Your task to perform on an android device: set an alarm Image 0: 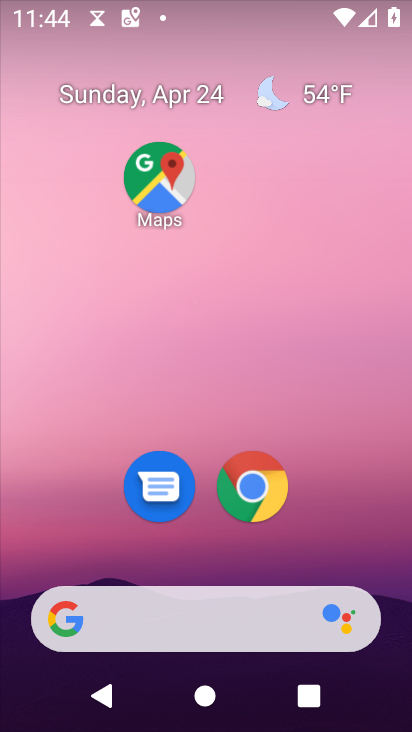
Step 0: drag from (234, 561) to (240, 186)
Your task to perform on an android device: set an alarm Image 1: 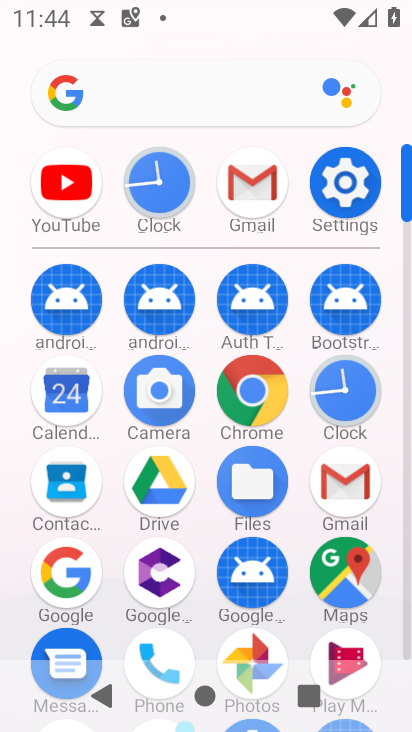
Step 1: click (339, 404)
Your task to perform on an android device: set an alarm Image 2: 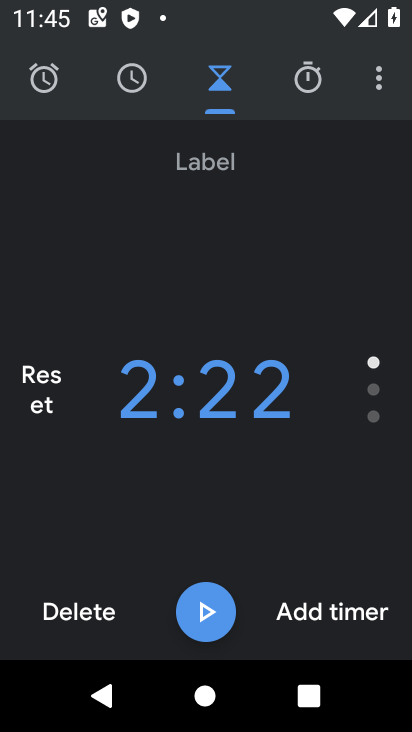
Step 2: click (49, 101)
Your task to perform on an android device: set an alarm Image 3: 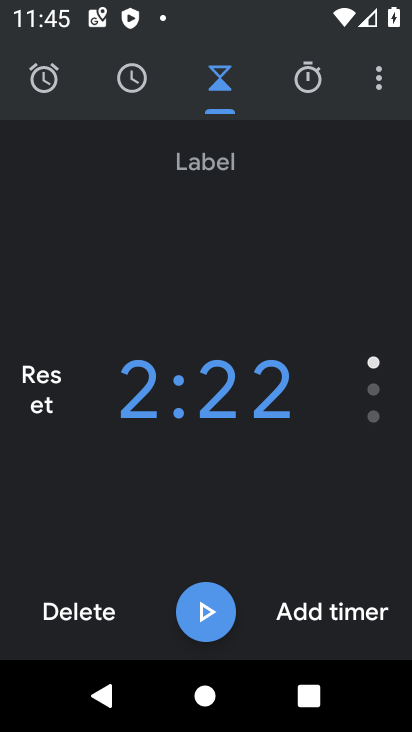
Step 3: click (58, 86)
Your task to perform on an android device: set an alarm Image 4: 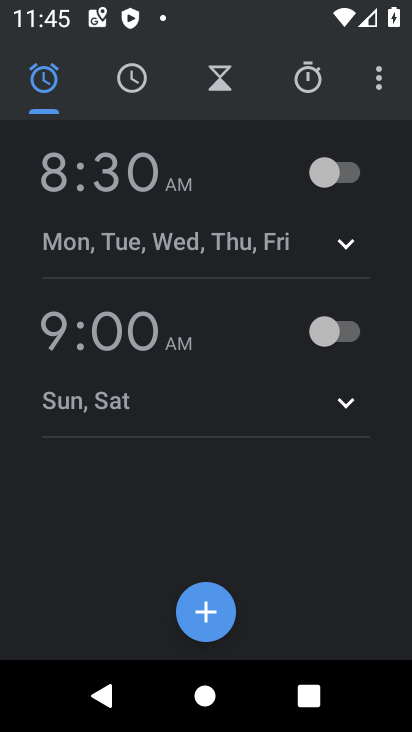
Step 4: click (323, 347)
Your task to perform on an android device: set an alarm Image 5: 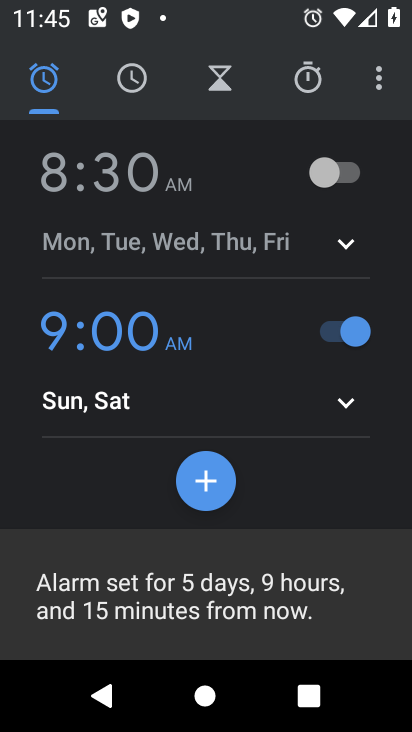
Step 5: task complete